Your task to perform on an android device: Add "panasonic triple a" to the cart on walmart Image 0: 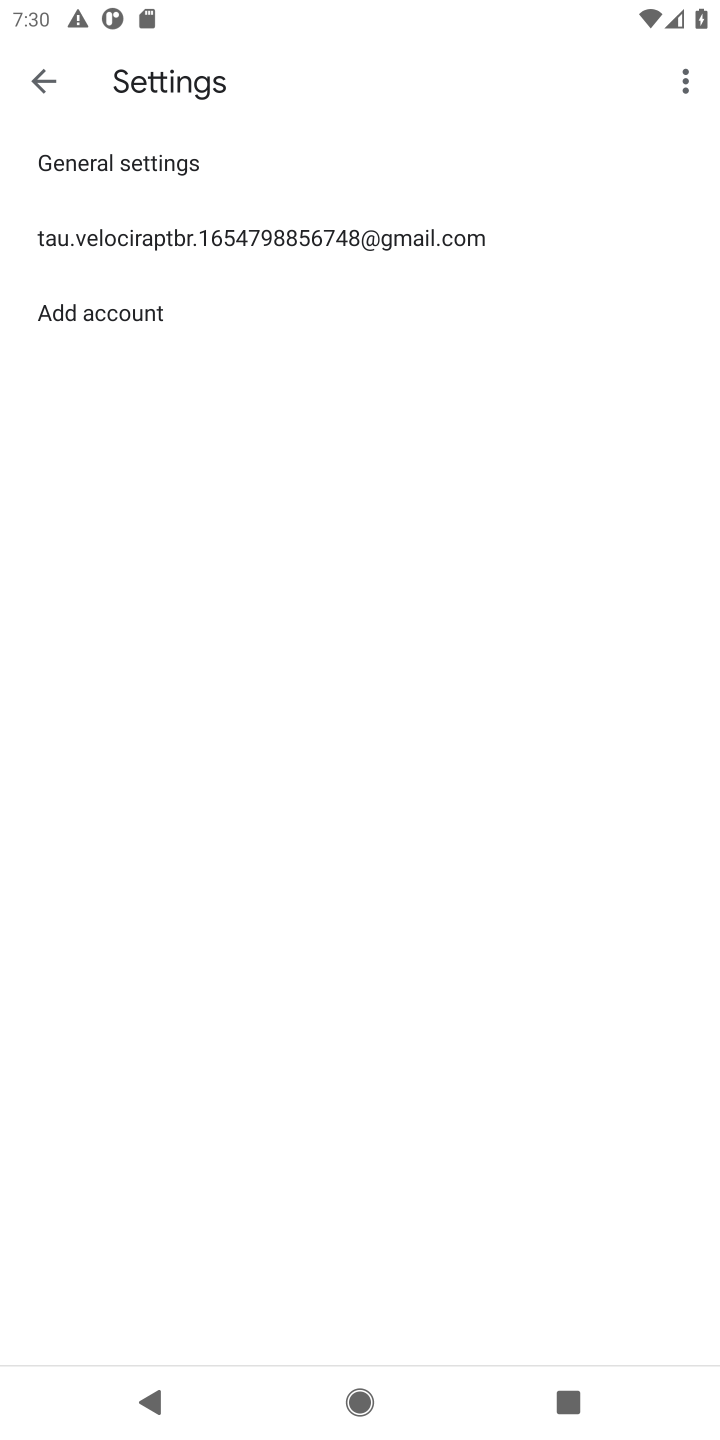
Step 0: press home button
Your task to perform on an android device: Add "panasonic triple a" to the cart on walmart Image 1: 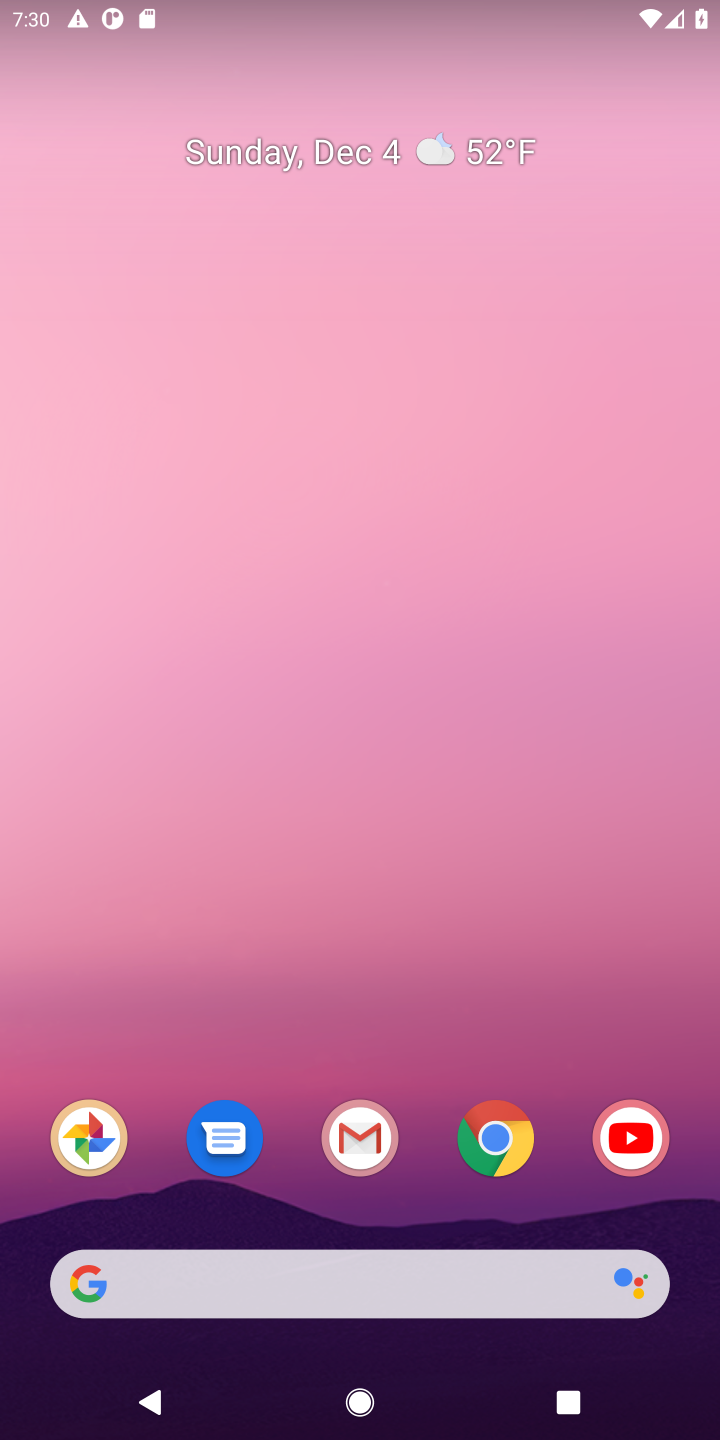
Step 1: click (502, 1162)
Your task to perform on an android device: Add "panasonic triple a" to the cart on walmart Image 2: 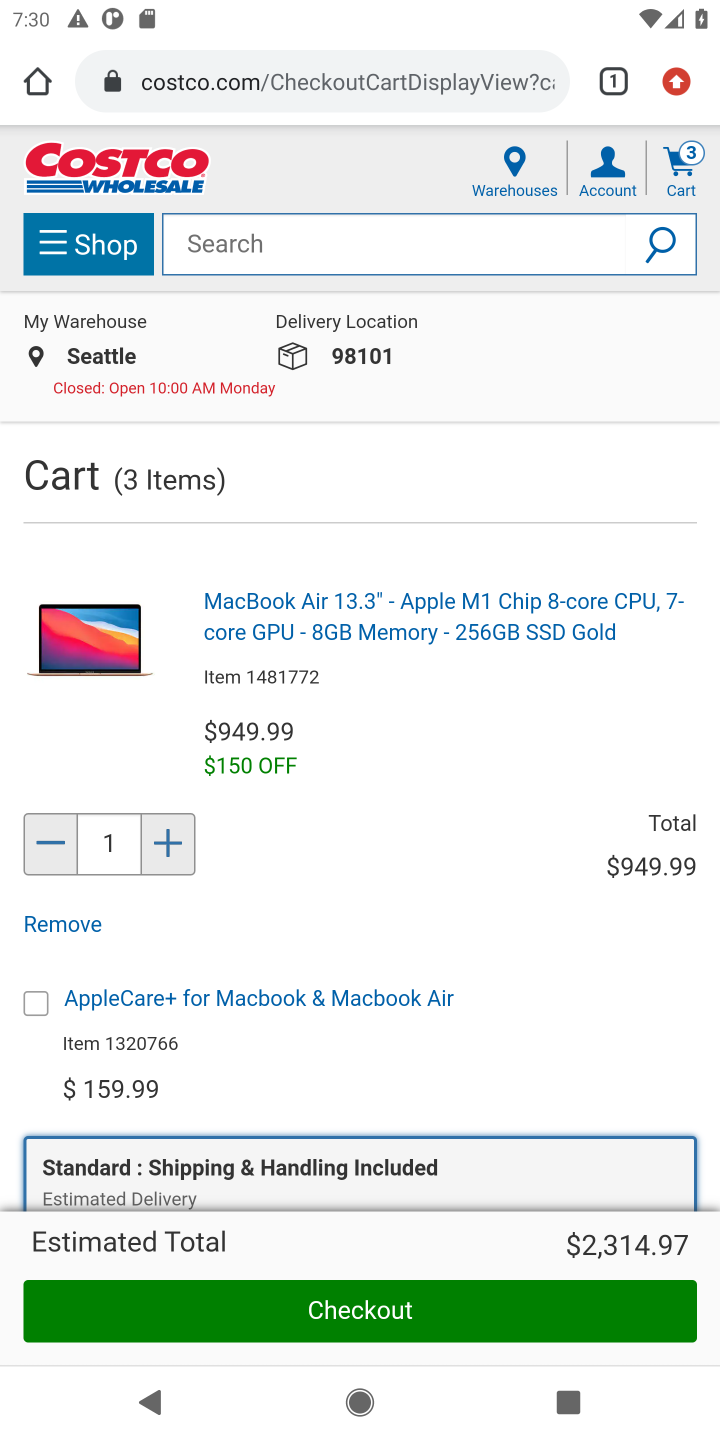
Step 2: click (395, 89)
Your task to perform on an android device: Add "panasonic triple a" to the cart on walmart Image 3: 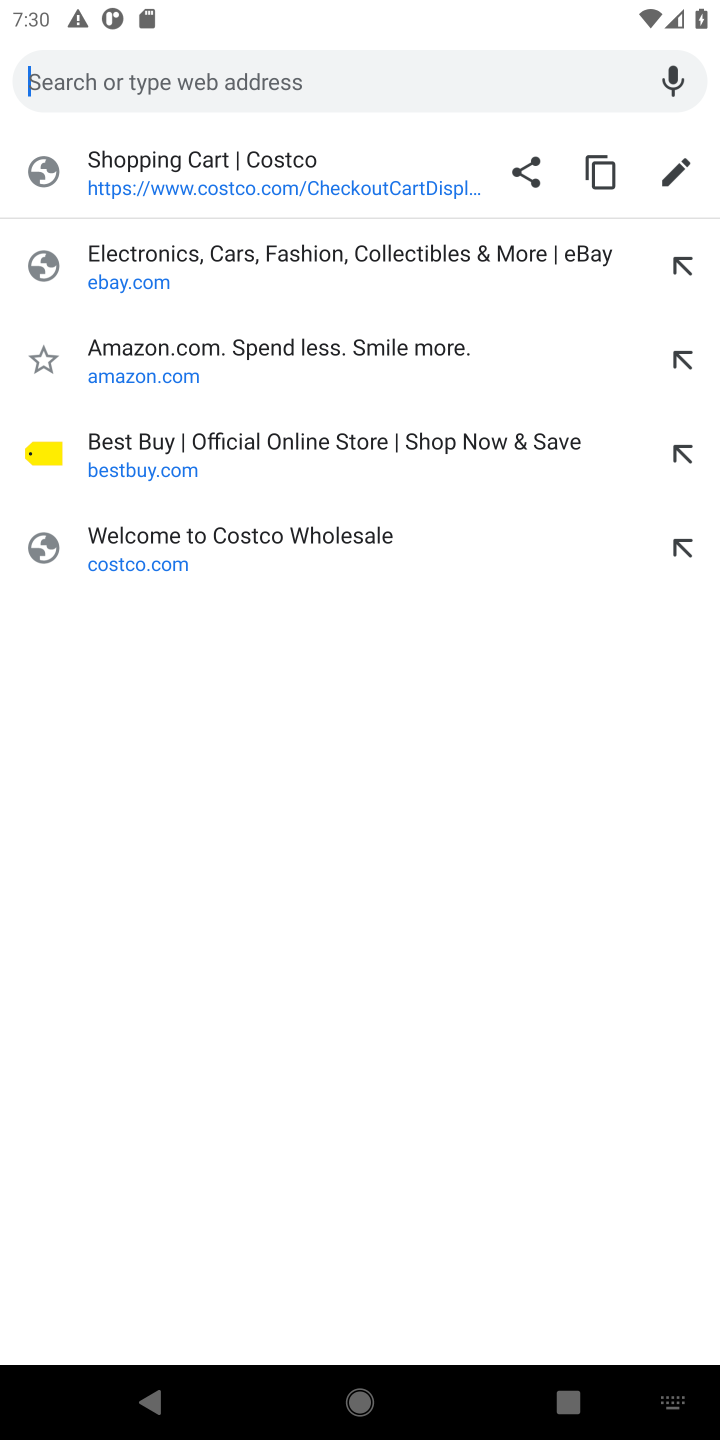
Step 3: type "walmart"
Your task to perform on an android device: Add "panasonic triple a" to the cart on walmart Image 4: 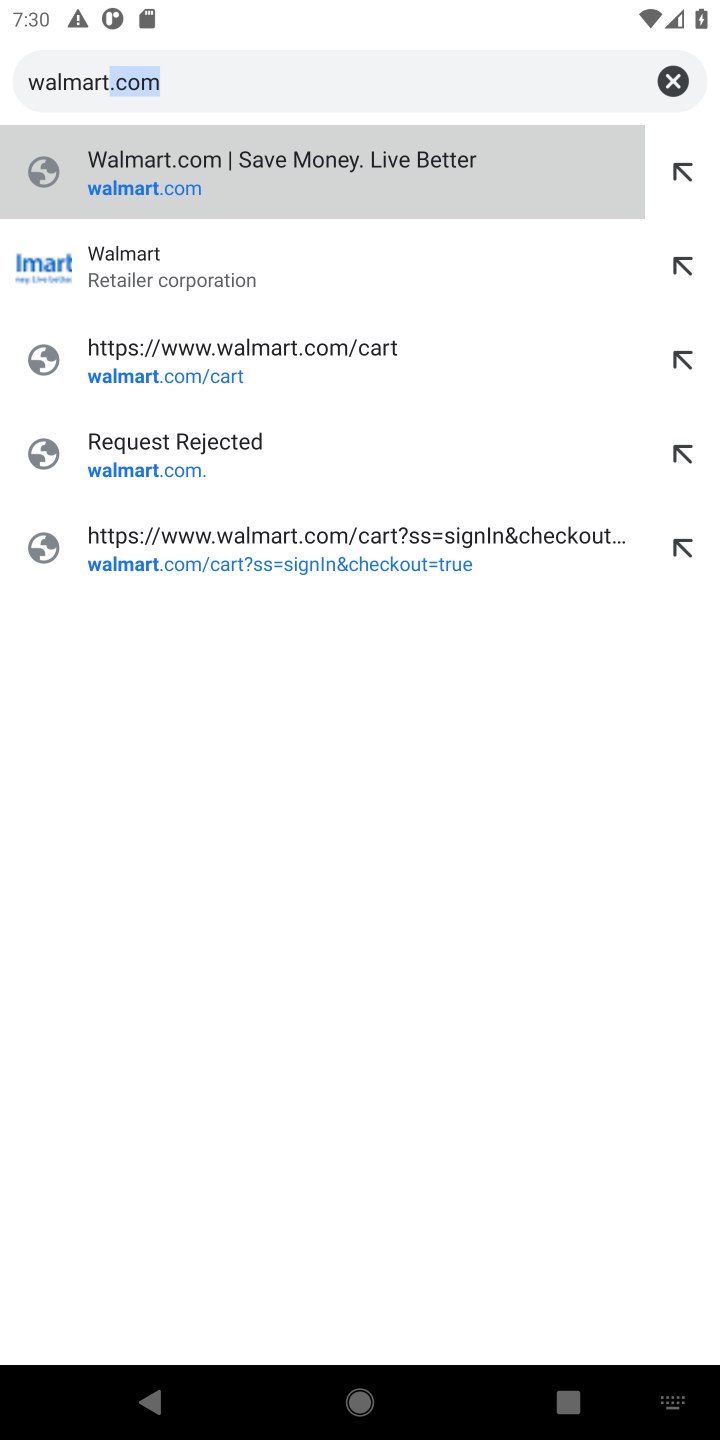
Step 4: press enter
Your task to perform on an android device: Add "panasonic triple a" to the cart on walmart Image 5: 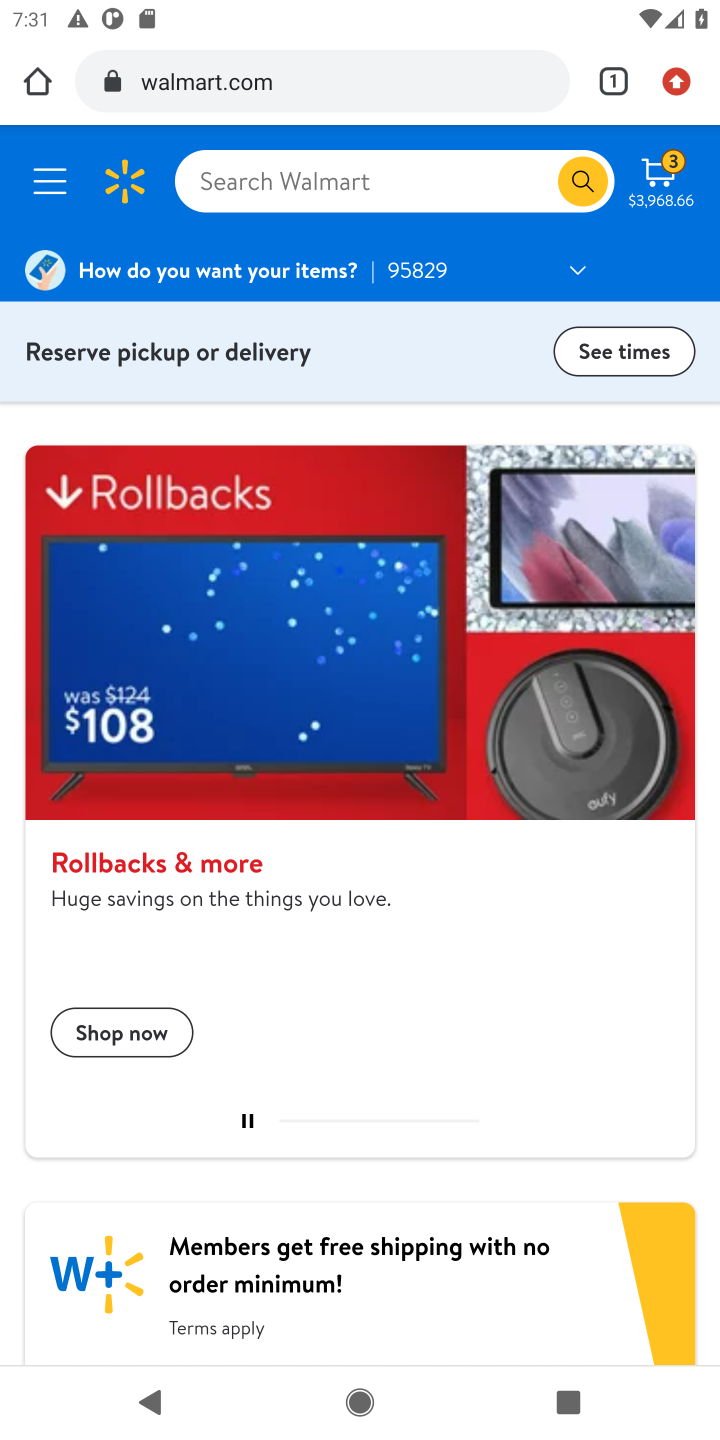
Step 5: click (459, 172)
Your task to perform on an android device: Add "panasonic triple a" to the cart on walmart Image 6: 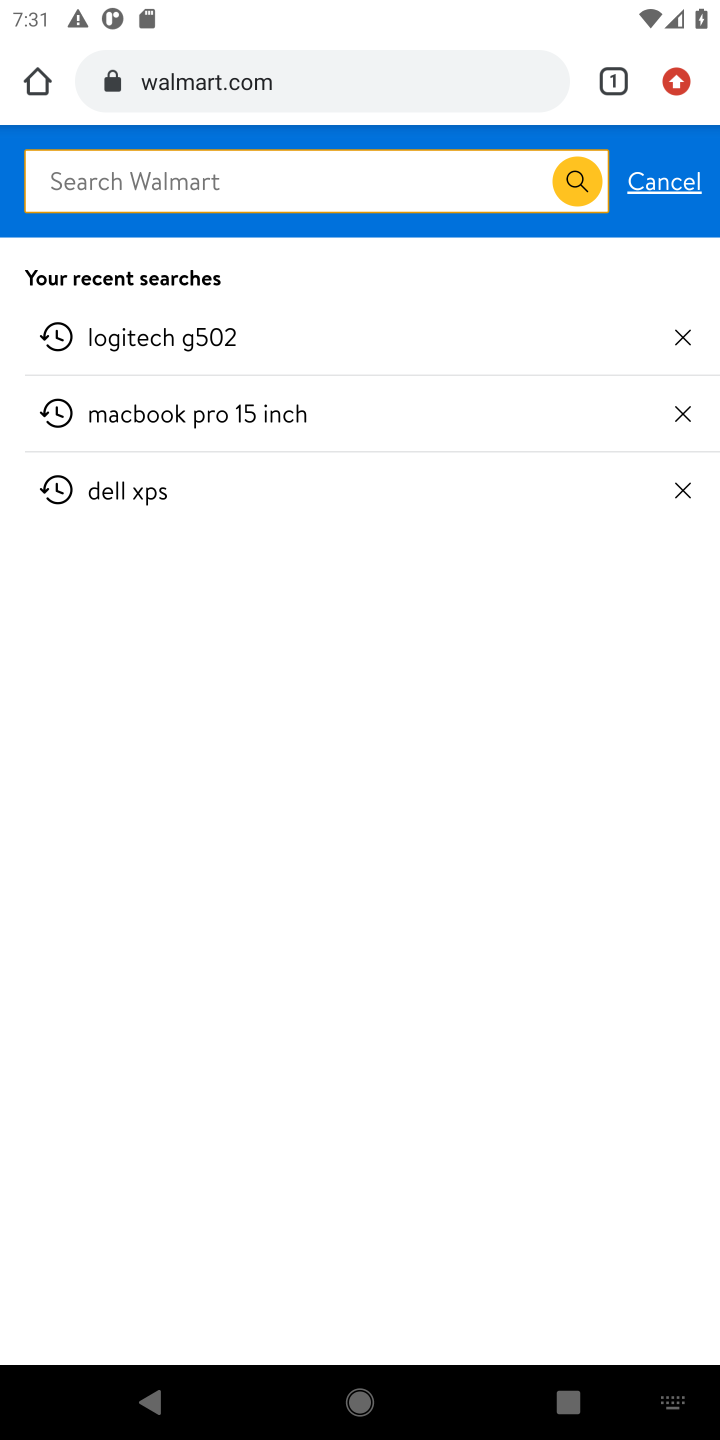
Step 6: press enter
Your task to perform on an android device: Add "panasonic triple a" to the cart on walmart Image 7: 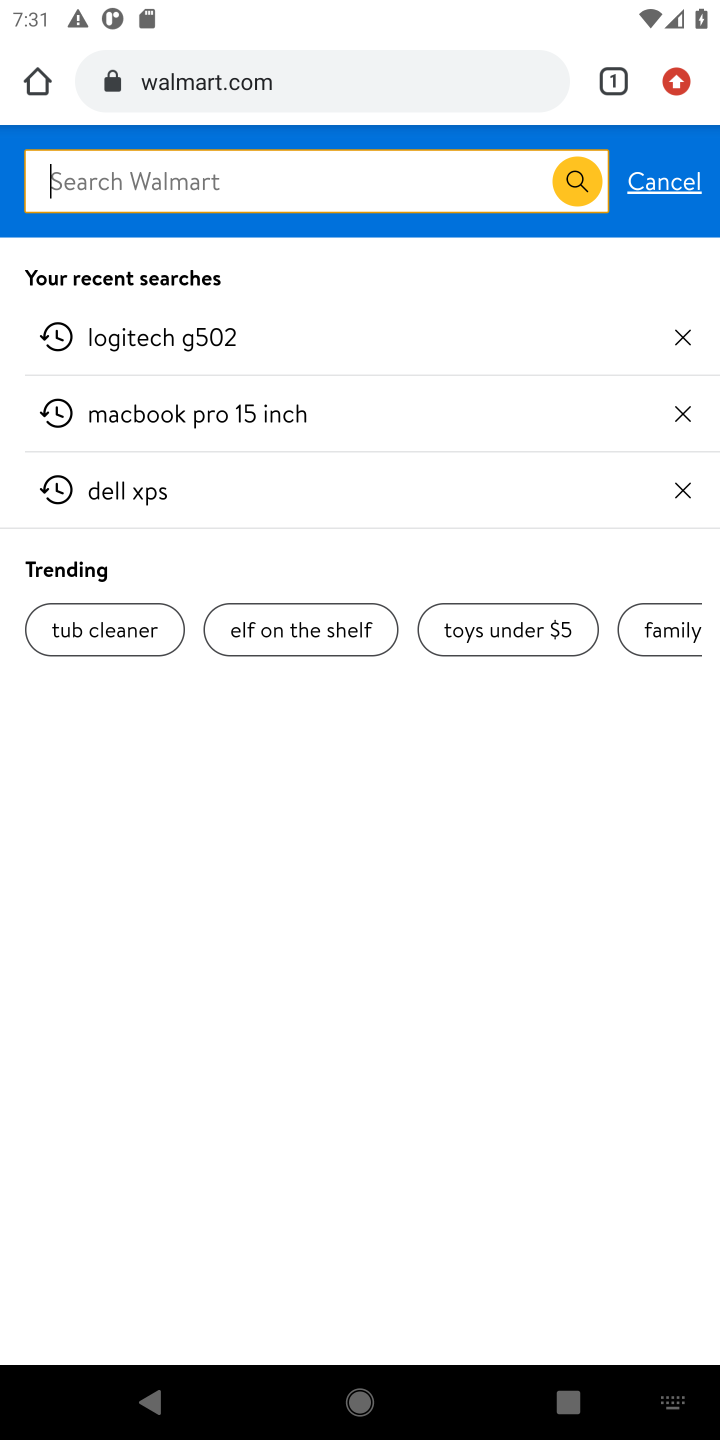
Step 7: type "panasonic triple a"
Your task to perform on an android device: Add "panasonic triple a" to the cart on walmart Image 8: 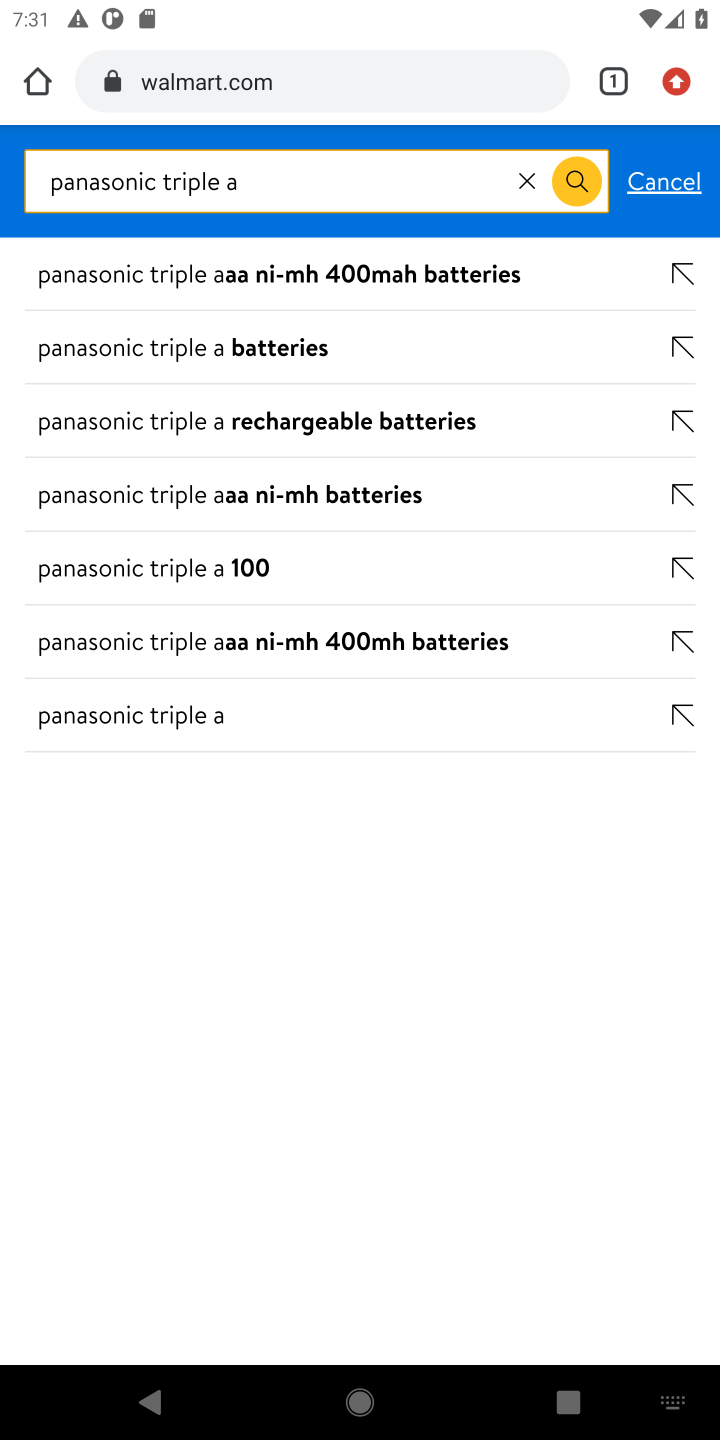
Step 8: click (576, 176)
Your task to perform on an android device: Add "panasonic triple a" to the cart on walmart Image 9: 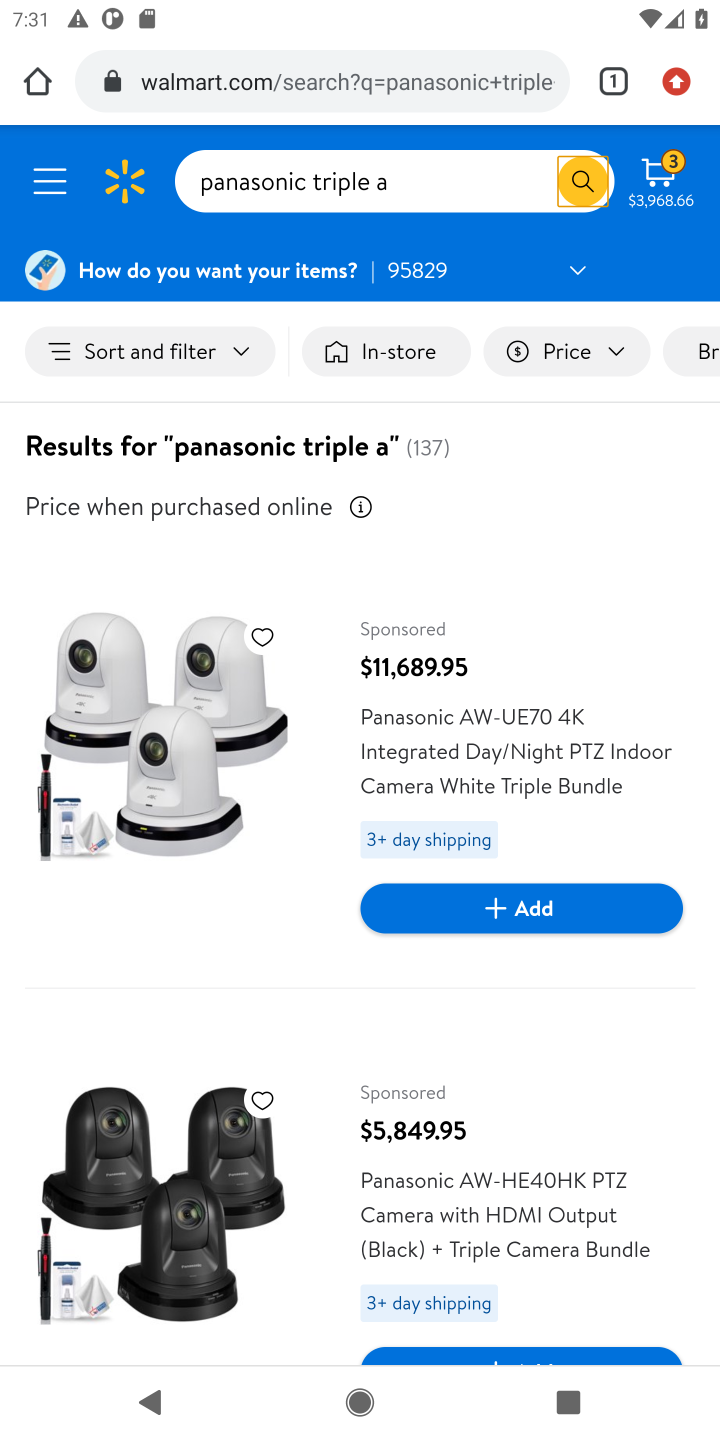
Step 9: drag from (456, 1047) to (490, 353)
Your task to perform on an android device: Add "panasonic triple a" to the cart on walmart Image 10: 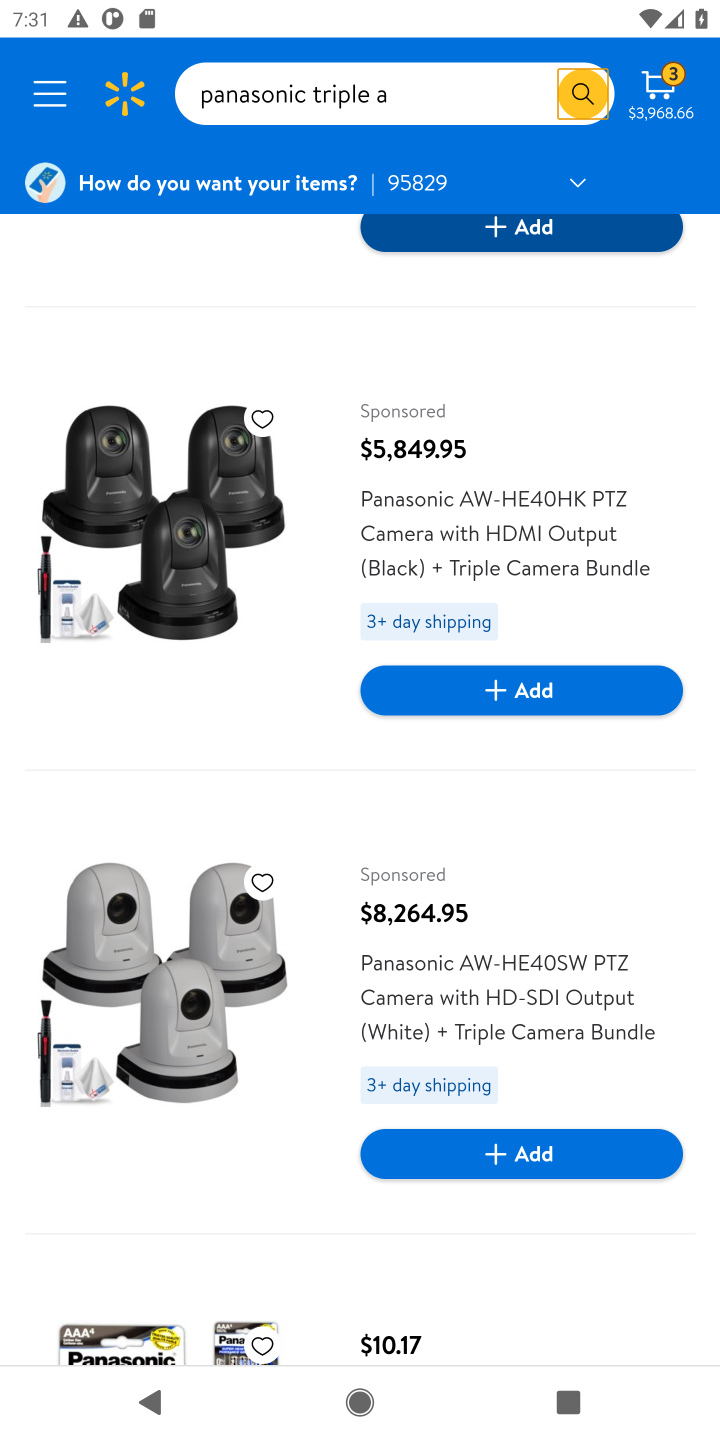
Step 10: drag from (540, 1023) to (487, 326)
Your task to perform on an android device: Add "panasonic triple a" to the cart on walmart Image 11: 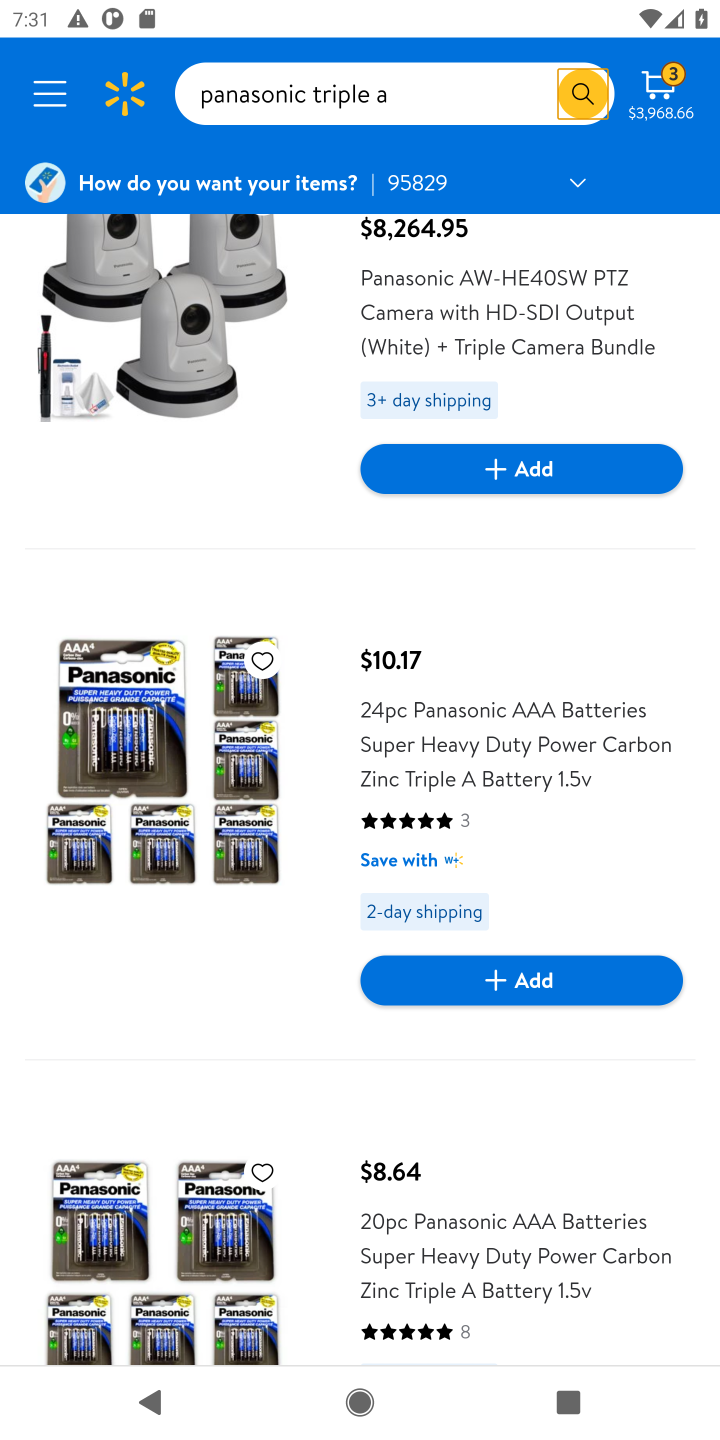
Step 11: click (193, 754)
Your task to perform on an android device: Add "panasonic triple a" to the cart on walmart Image 12: 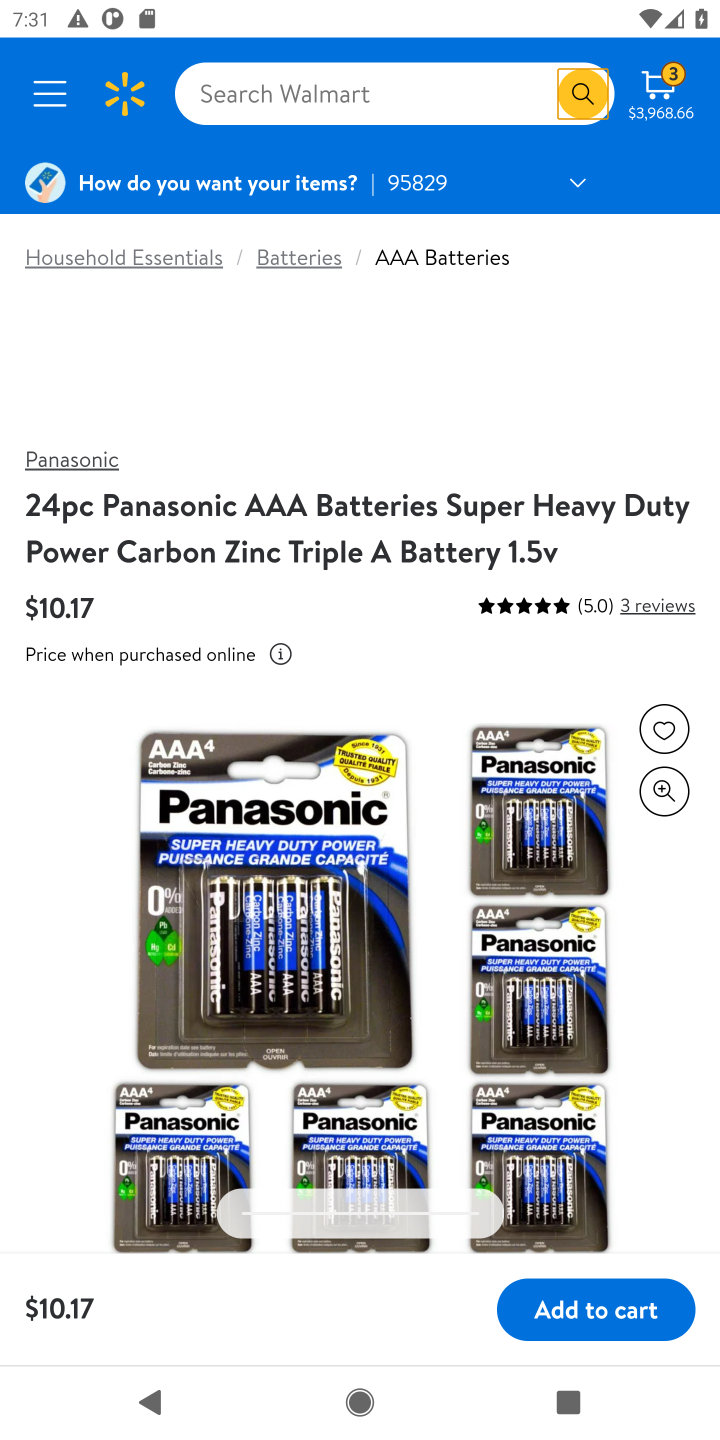
Step 12: click (639, 1316)
Your task to perform on an android device: Add "panasonic triple a" to the cart on walmart Image 13: 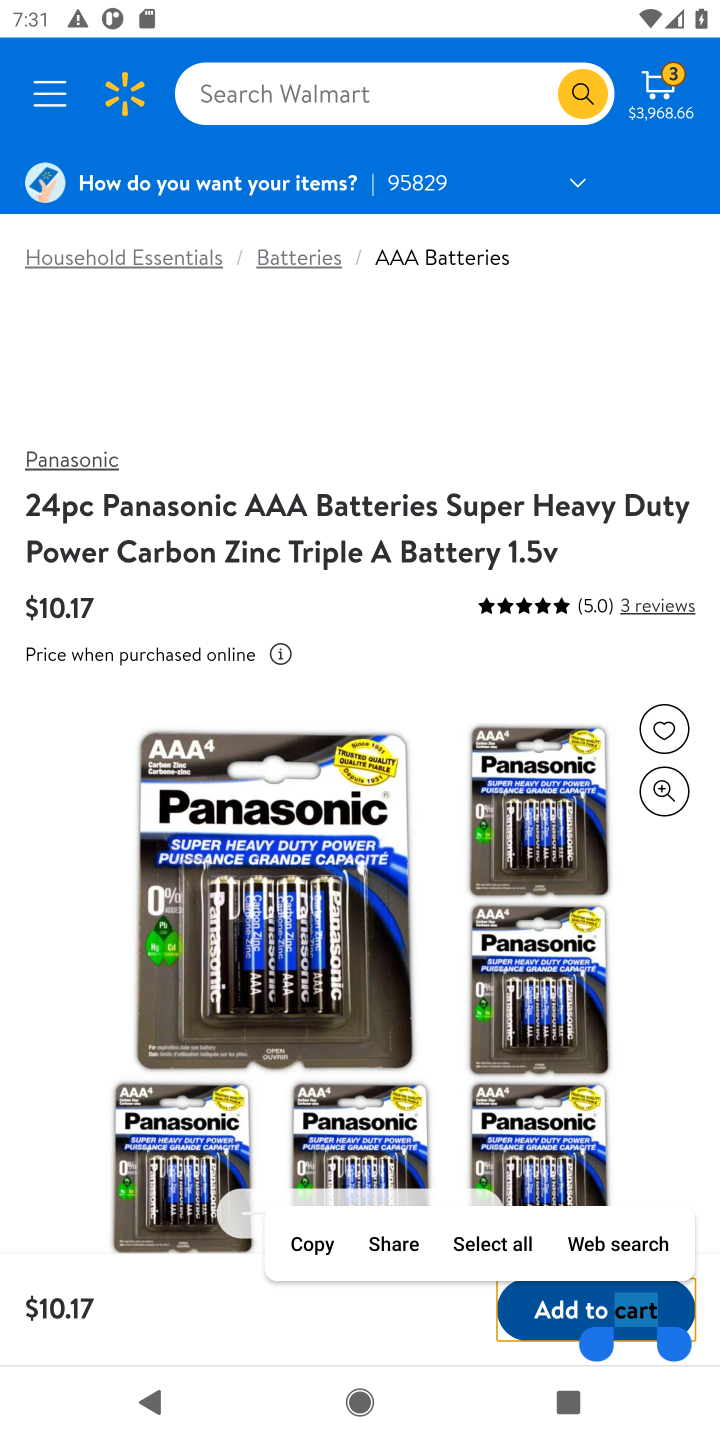
Step 13: click (552, 1313)
Your task to perform on an android device: Add "panasonic triple a" to the cart on walmart Image 14: 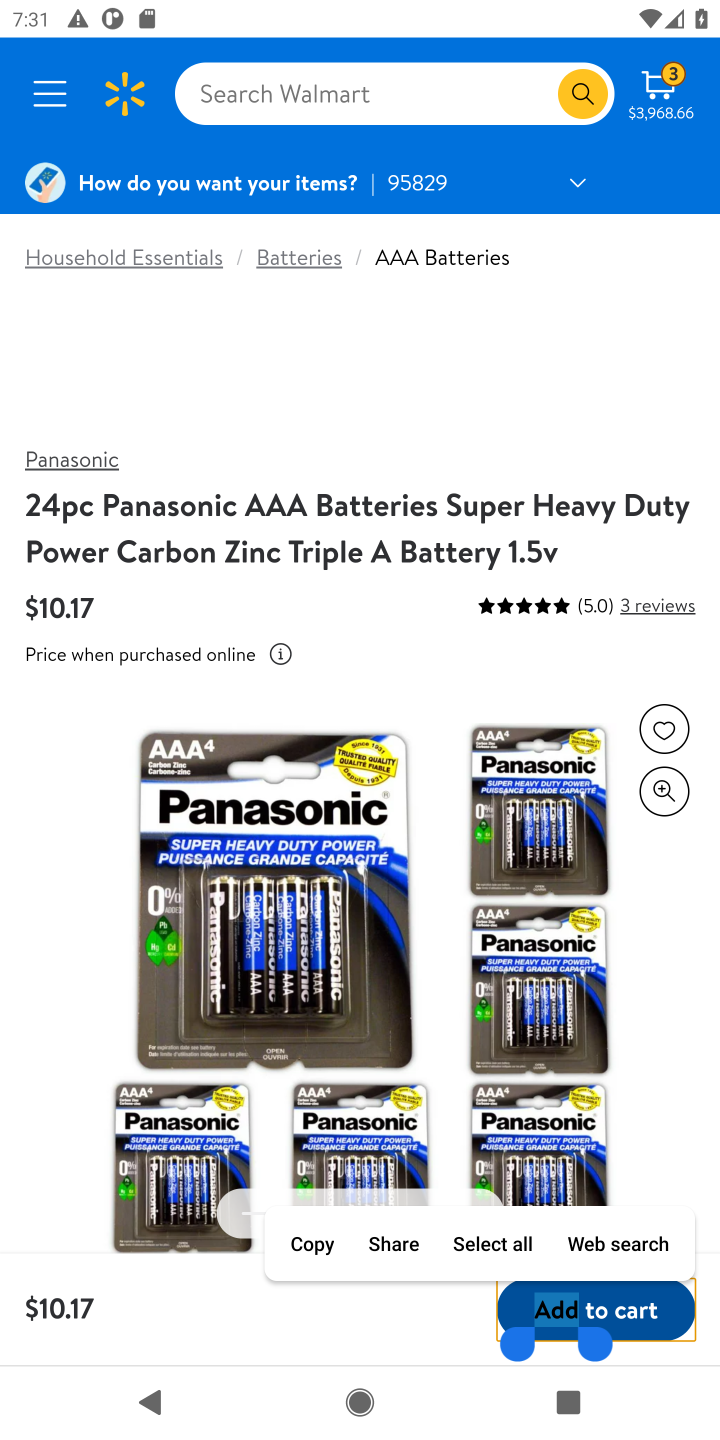
Step 14: click (387, 1311)
Your task to perform on an android device: Add "panasonic triple a" to the cart on walmart Image 15: 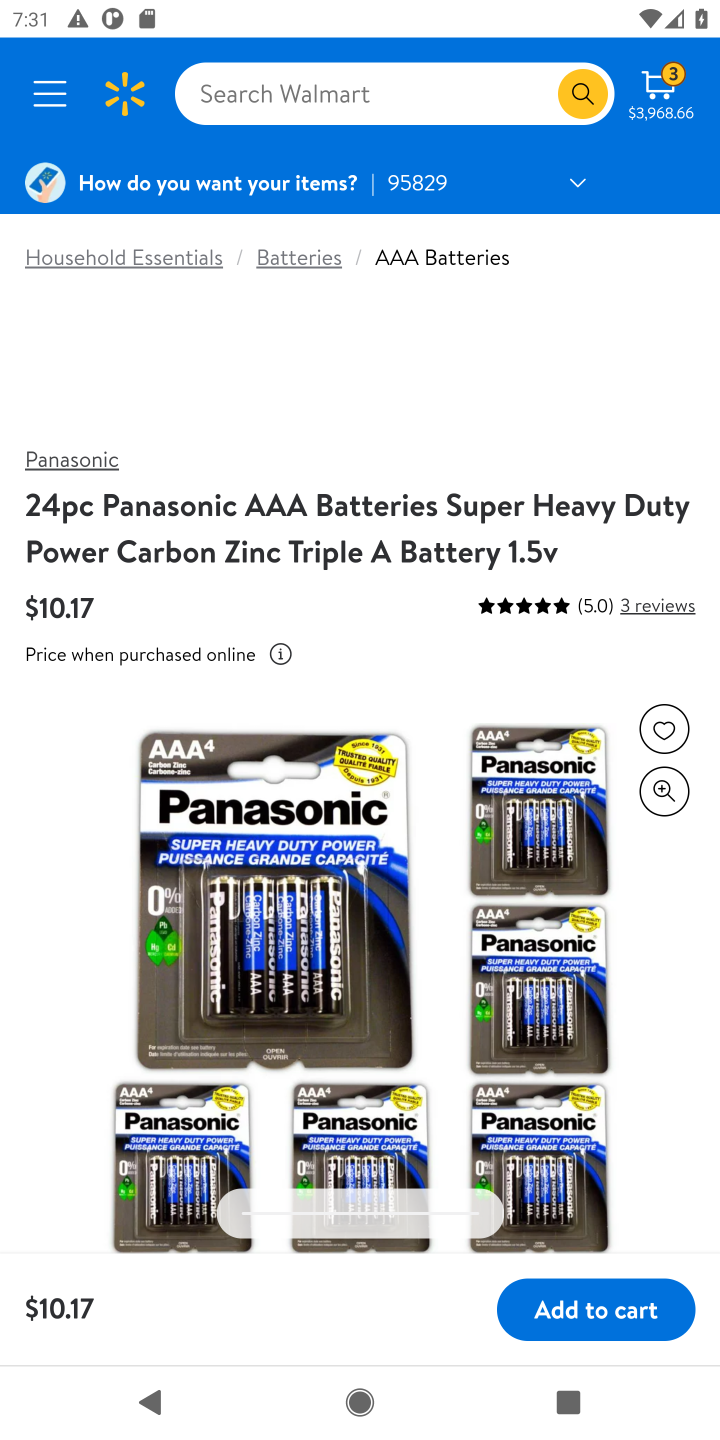
Step 15: click (638, 1312)
Your task to perform on an android device: Add "panasonic triple a" to the cart on walmart Image 16: 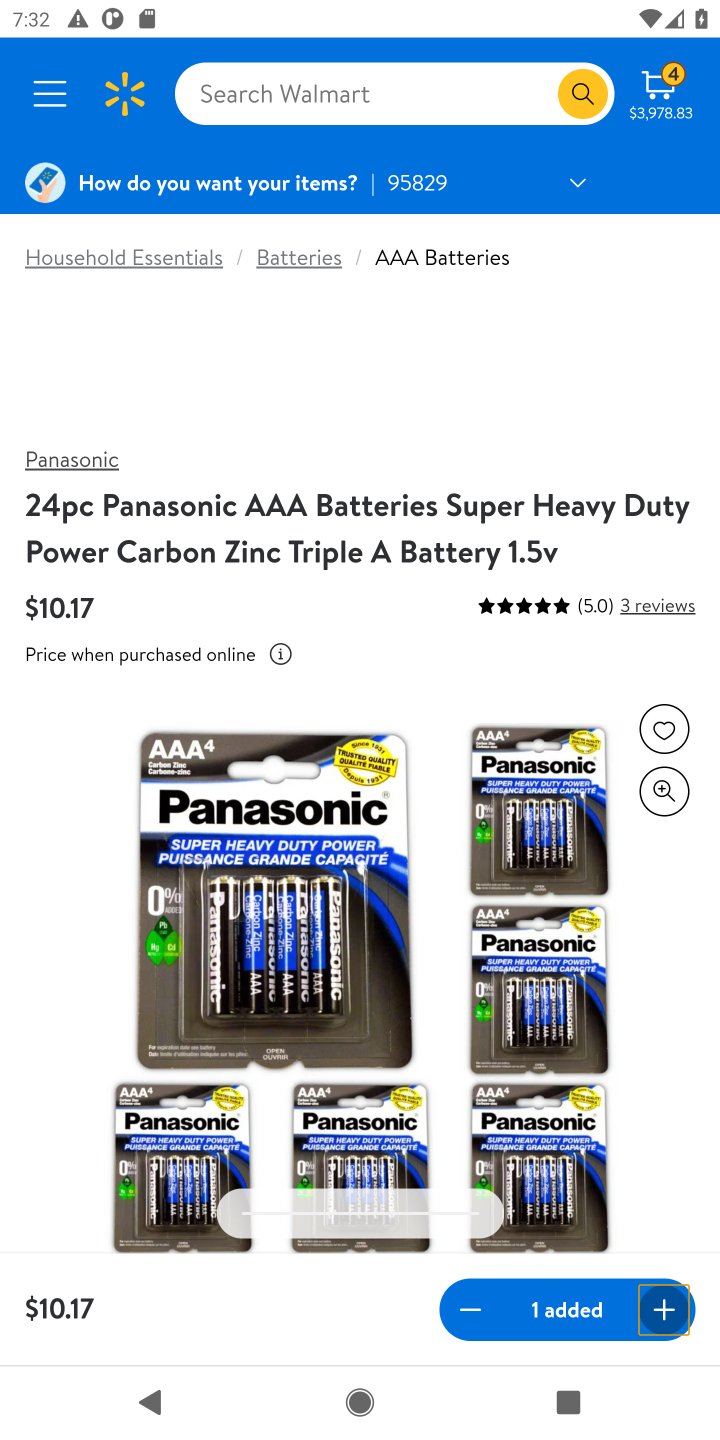
Step 16: task complete